Your task to perform on an android device: Go to Google Image 0: 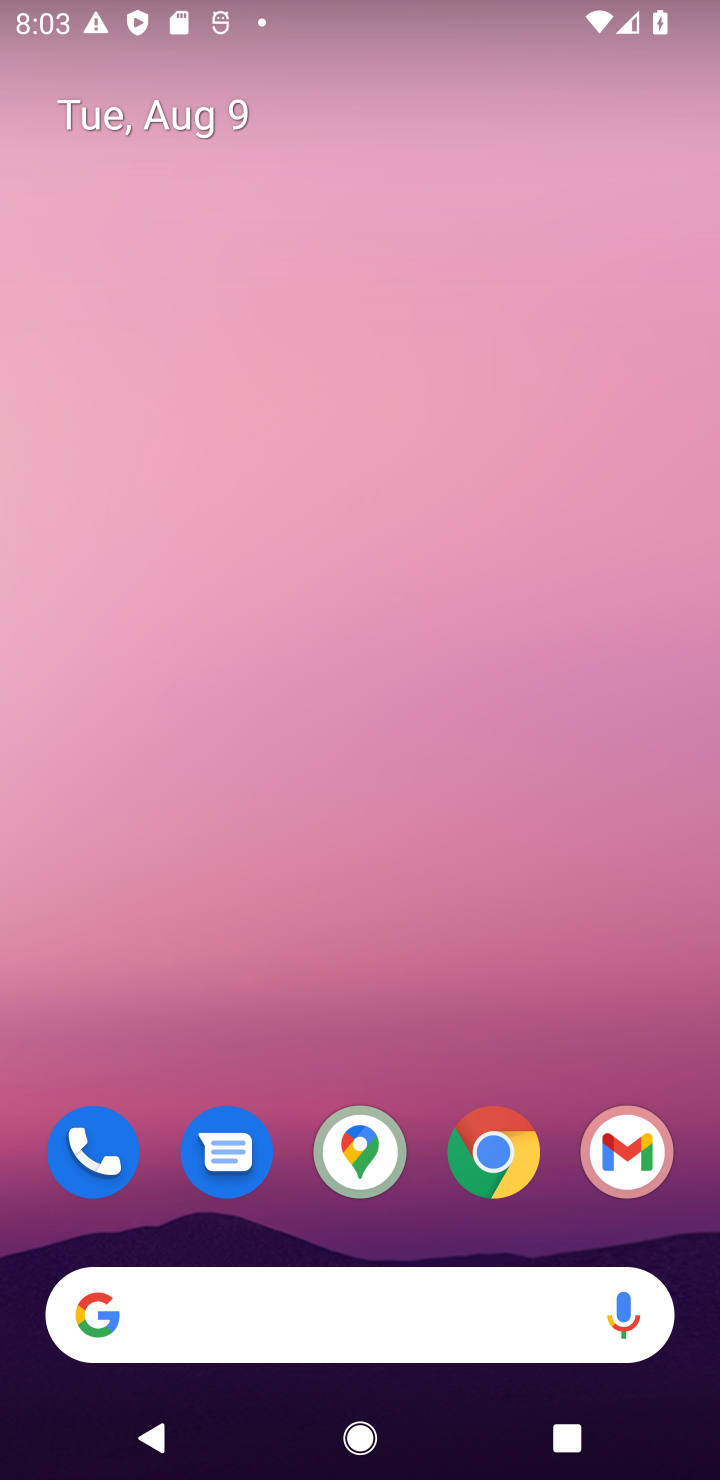
Step 0: click (392, 1281)
Your task to perform on an android device: Go to Google Image 1: 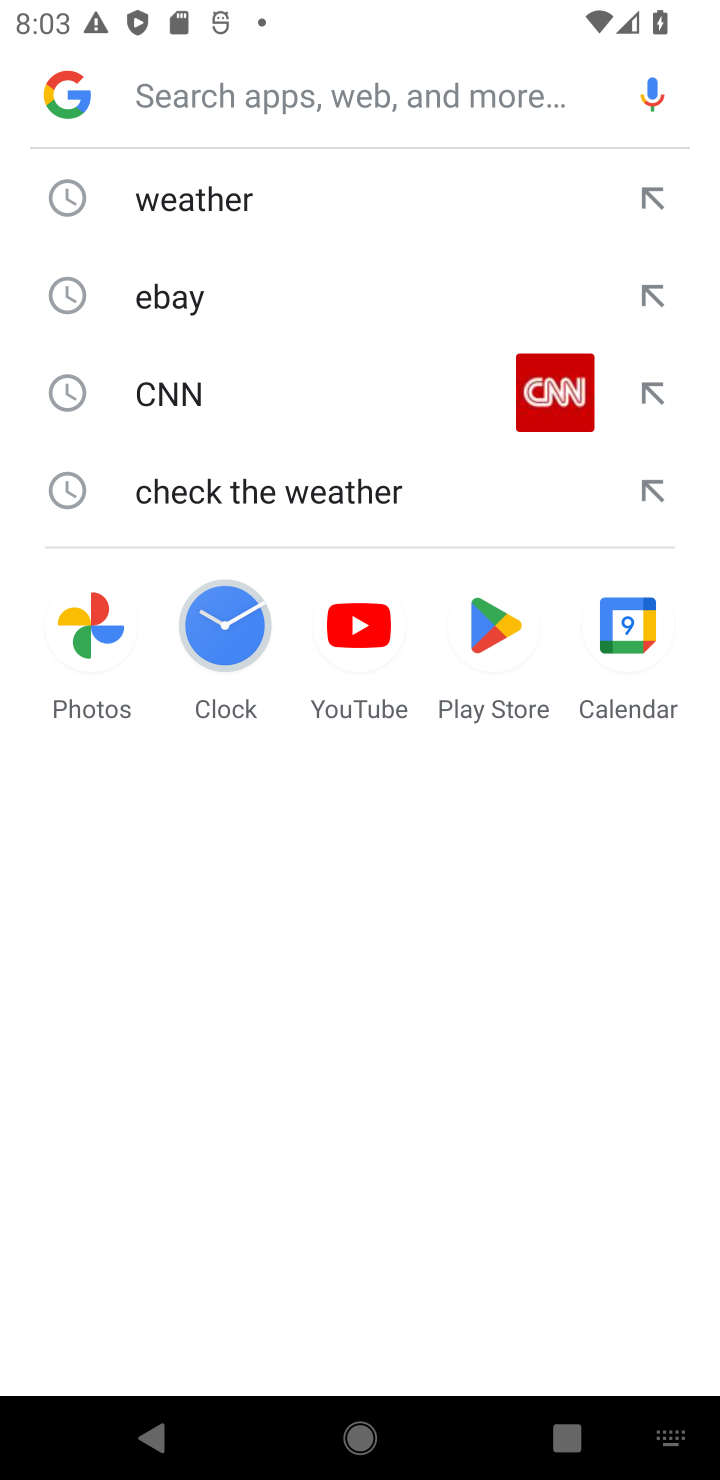
Step 1: task complete